Your task to perform on an android device: turn on airplane mode Image 0: 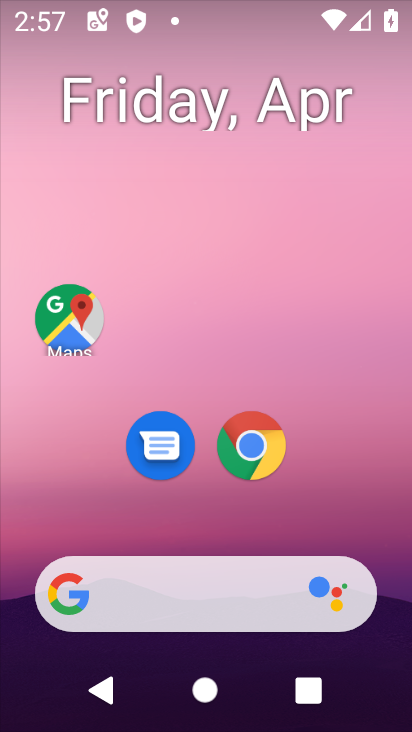
Step 0: drag from (321, 494) to (326, 35)
Your task to perform on an android device: turn on airplane mode Image 1: 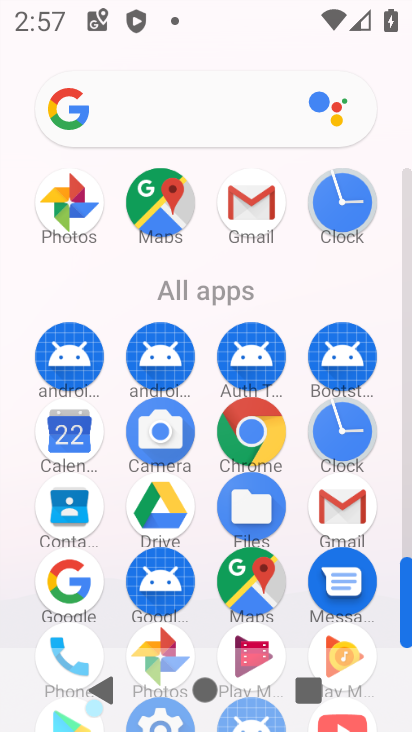
Step 1: drag from (207, 466) to (202, 203)
Your task to perform on an android device: turn on airplane mode Image 2: 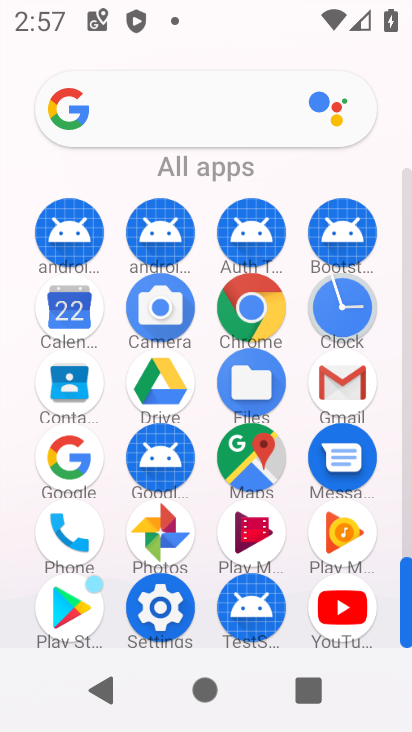
Step 2: click (156, 610)
Your task to perform on an android device: turn on airplane mode Image 3: 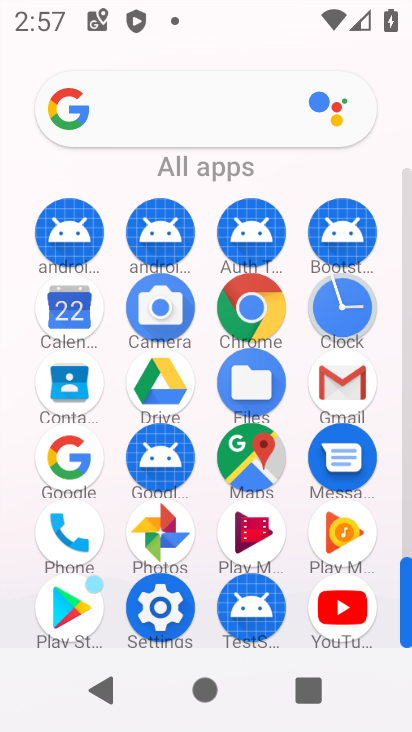
Step 3: click (156, 610)
Your task to perform on an android device: turn on airplane mode Image 4: 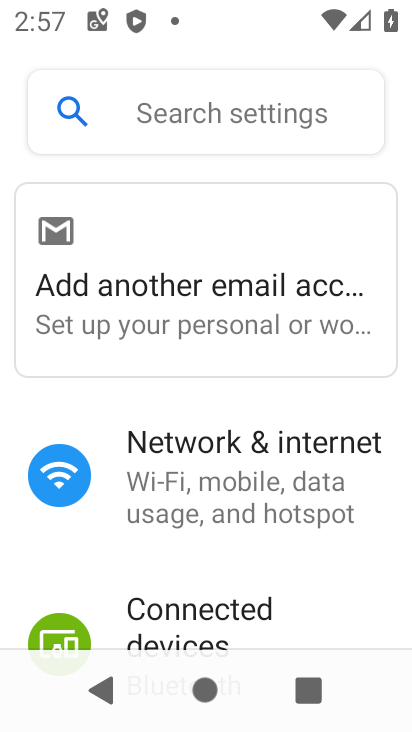
Step 4: click (213, 476)
Your task to perform on an android device: turn on airplane mode Image 5: 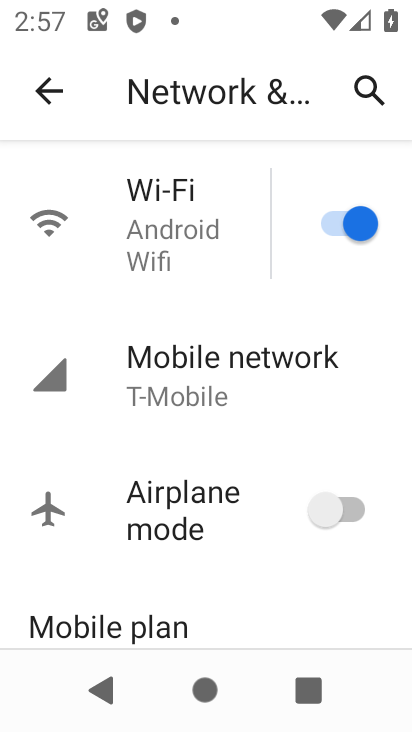
Step 5: click (333, 514)
Your task to perform on an android device: turn on airplane mode Image 6: 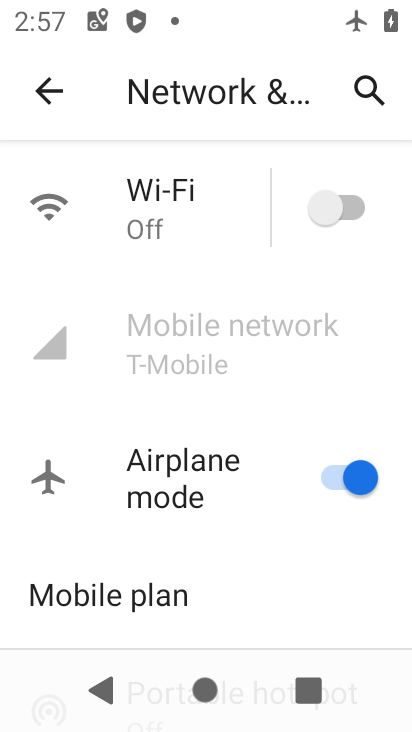
Step 6: task complete